Your task to perform on an android device: change the clock display to analog Image 0: 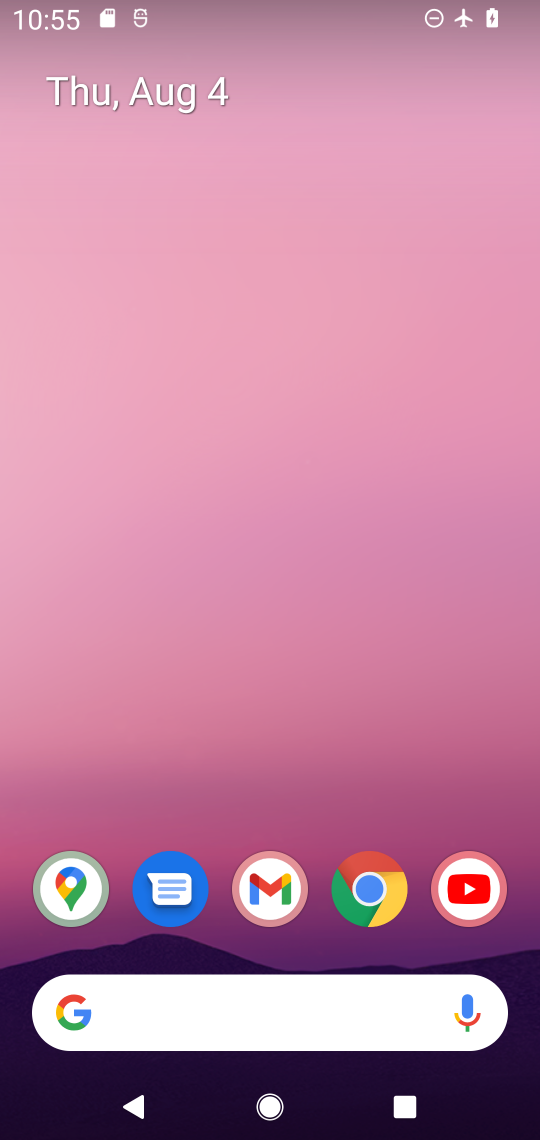
Step 0: press home button
Your task to perform on an android device: change the clock display to analog Image 1: 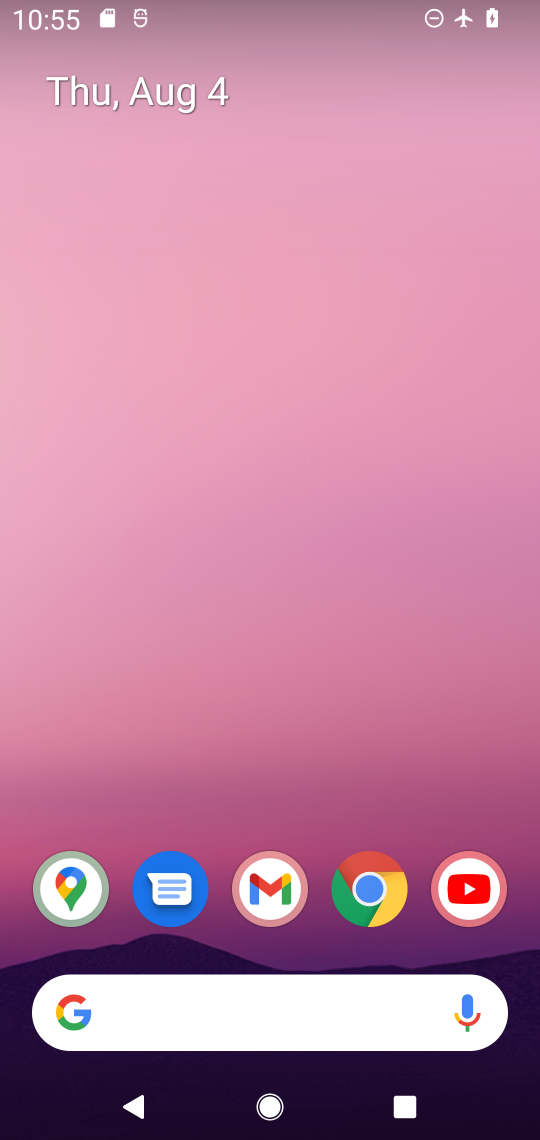
Step 1: drag from (415, 769) to (376, 194)
Your task to perform on an android device: change the clock display to analog Image 2: 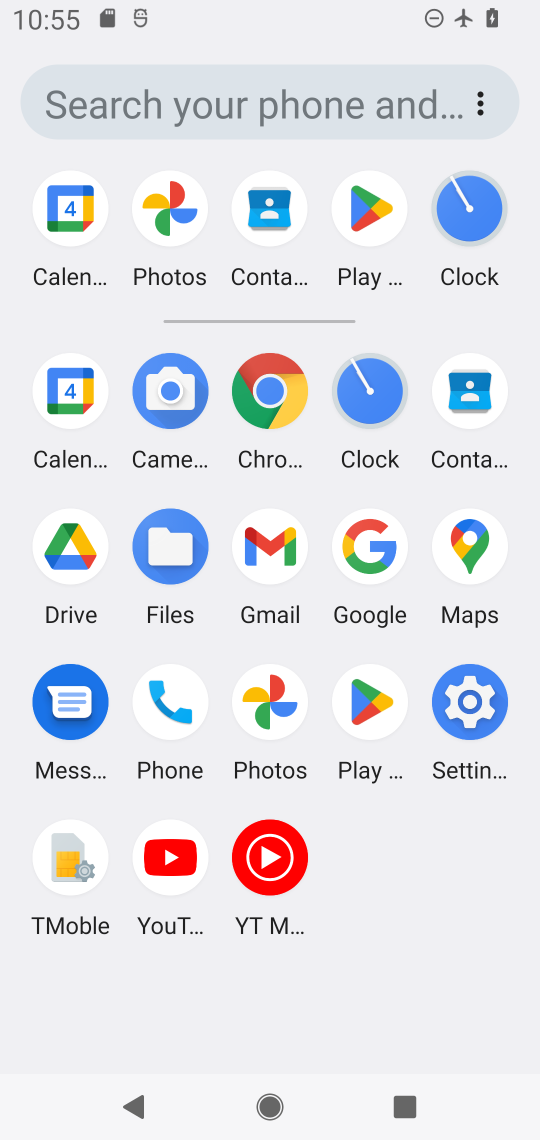
Step 2: click (368, 409)
Your task to perform on an android device: change the clock display to analog Image 3: 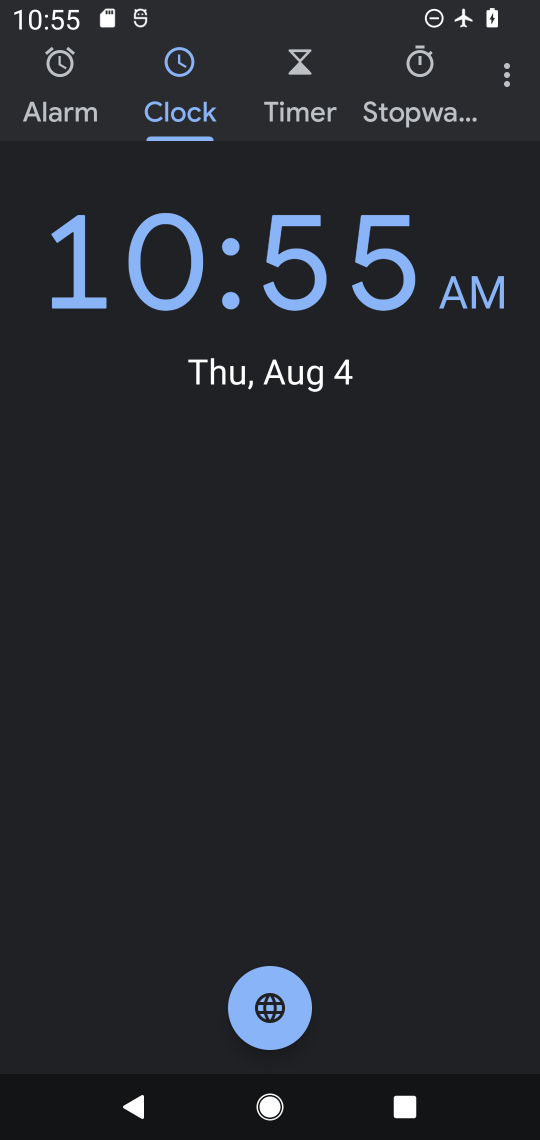
Step 3: click (509, 73)
Your task to perform on an android device: change the clock display to analog Image 4: 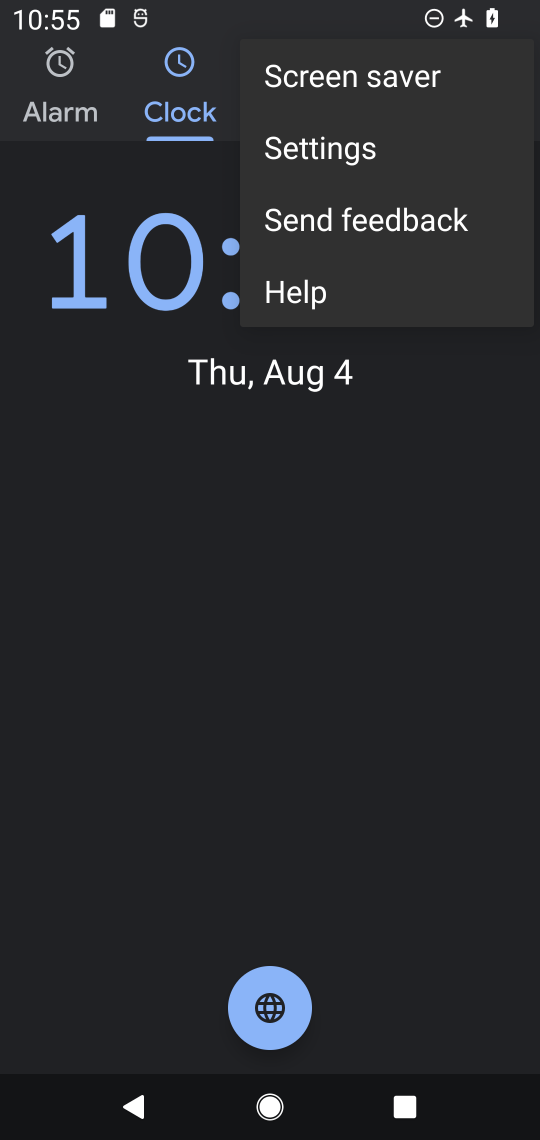
Step 4: click (352, 153)
Your task to perform on an android device: change the clock display to analog Image 5: 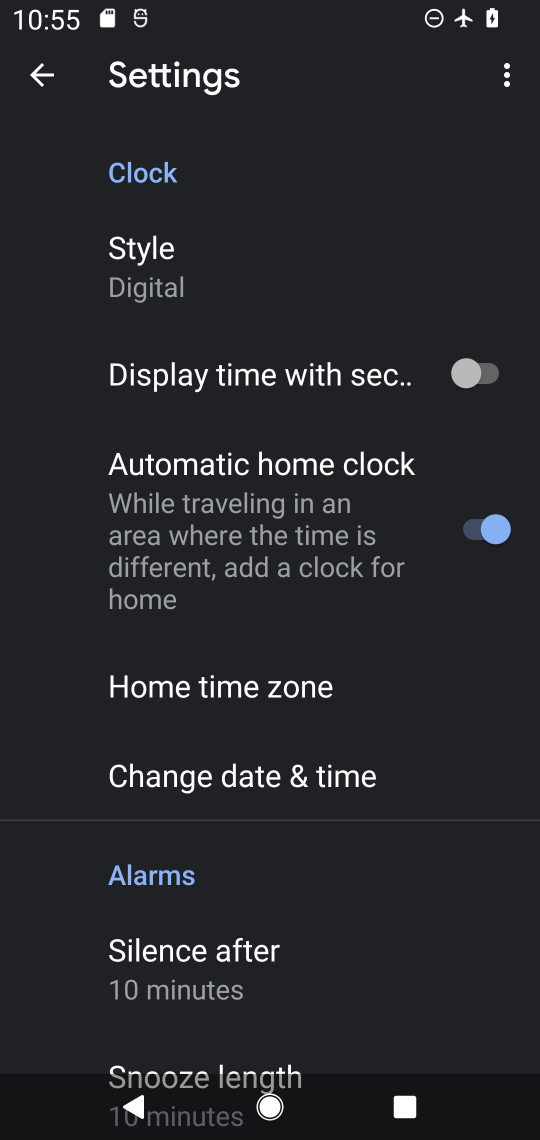
Step 5: drag from (372, 662) to (352, 453)
Your task to perform on an android device: change the clock display to analog Image 6: 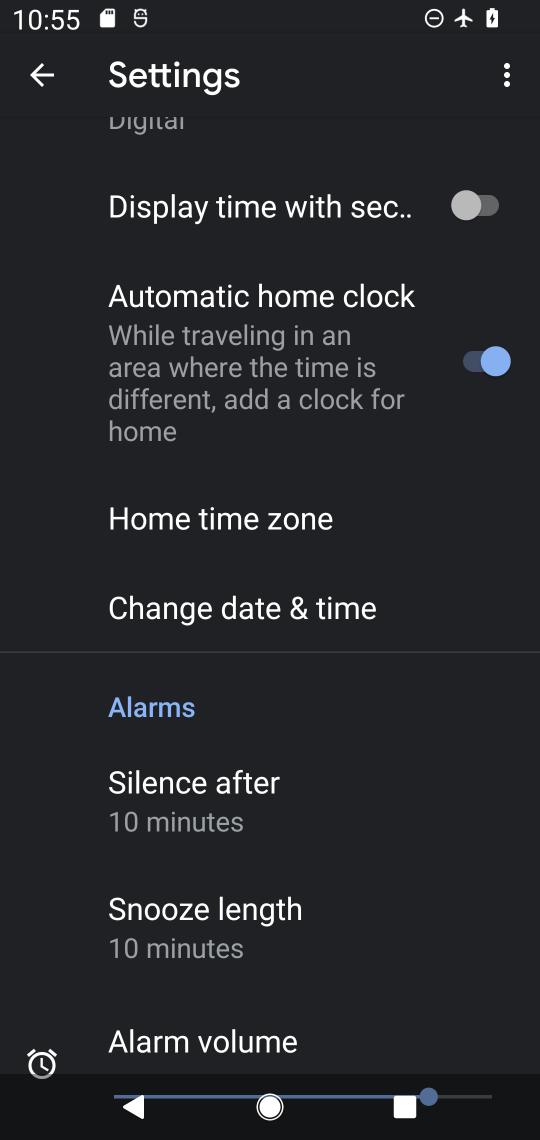
Step 6: drag from (404, 717) to (407, 527)
Your task to perform on an android device: change the clock display to analog Image 7: 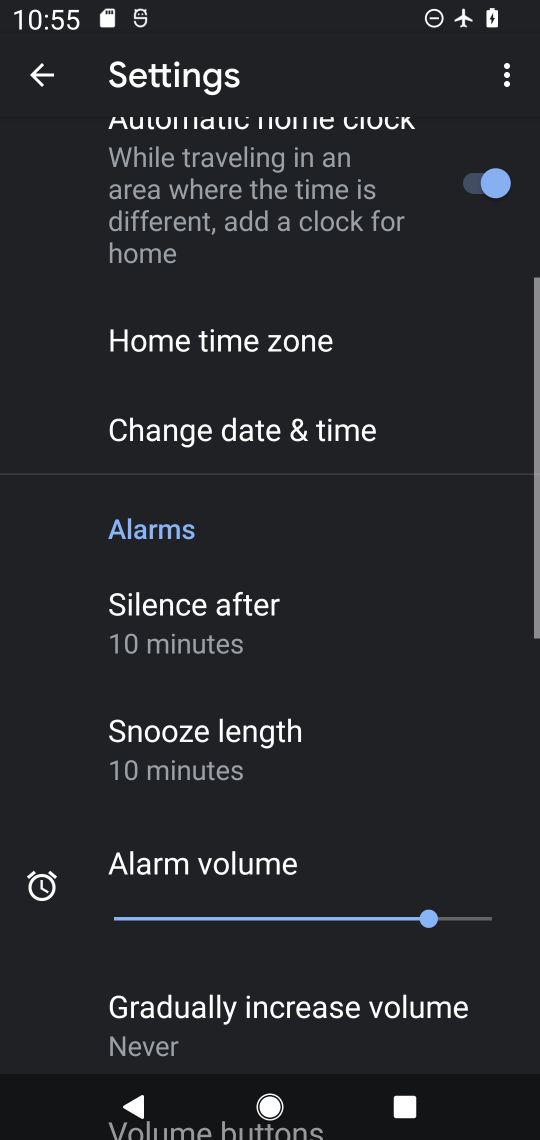
Step 7: drag from (437, 725) to (432, 577)
Your task to perform on an android device: change the clock display to analog Image 8: 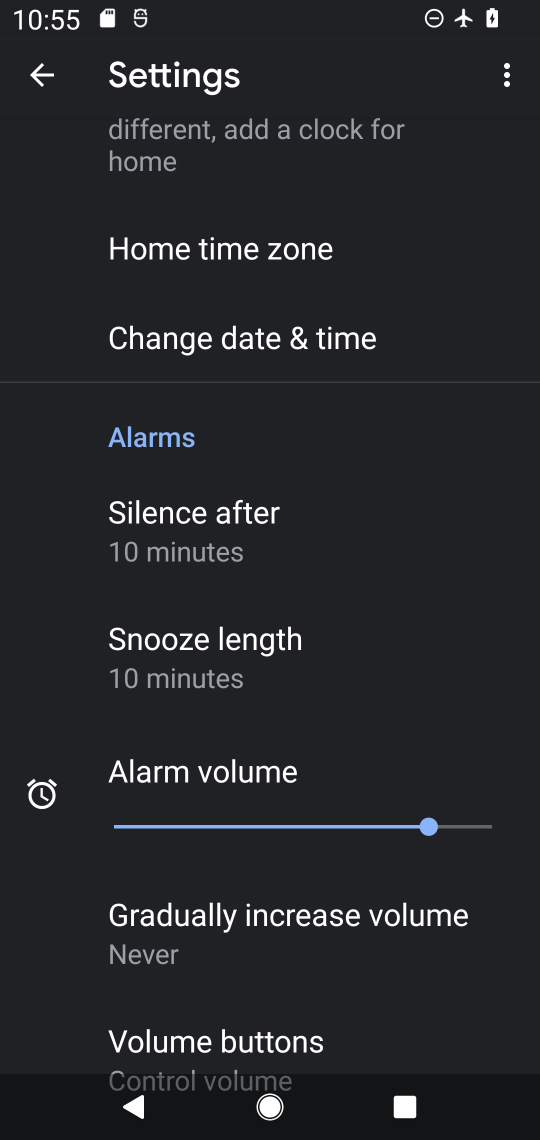
Step 8: drag from (455, 913) to (459, 630)
Your task to perform on an android device: change the clock display to analog Image 9: 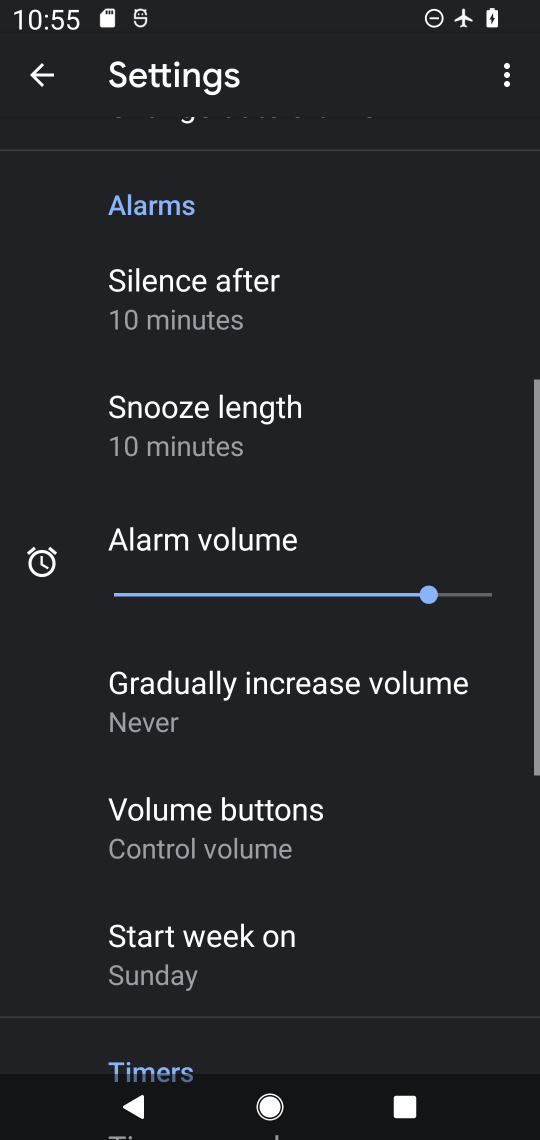
Step 9: drag from (436, 933) to (442, 703)
Your task to perform on an android device: change the clock display to analog Image 10: 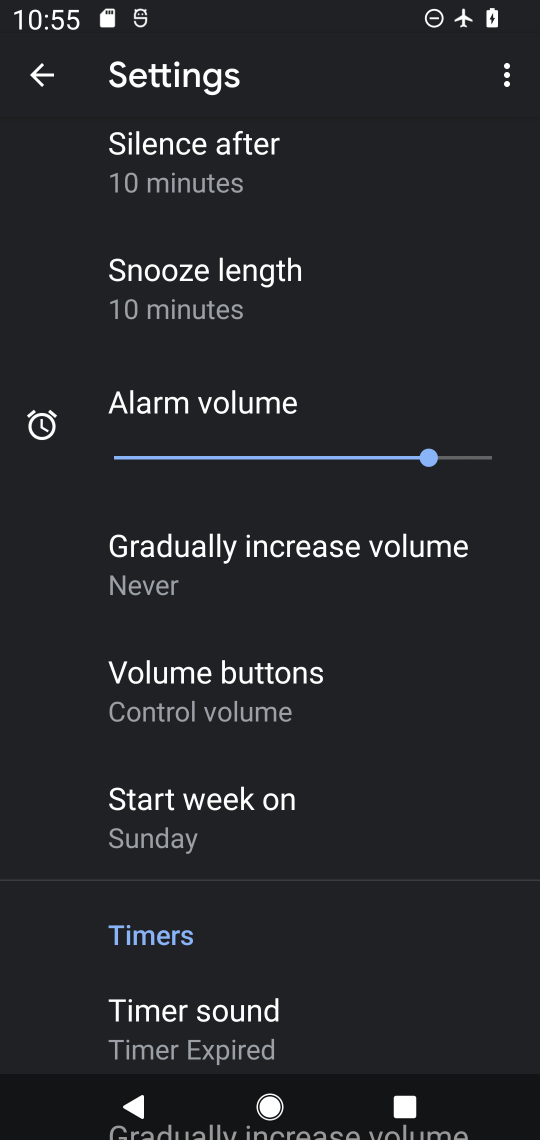
Step 10: drag from (487, 291) to (490, 527)
Your task to perform on an android device: change the clock display to analog Image 11: 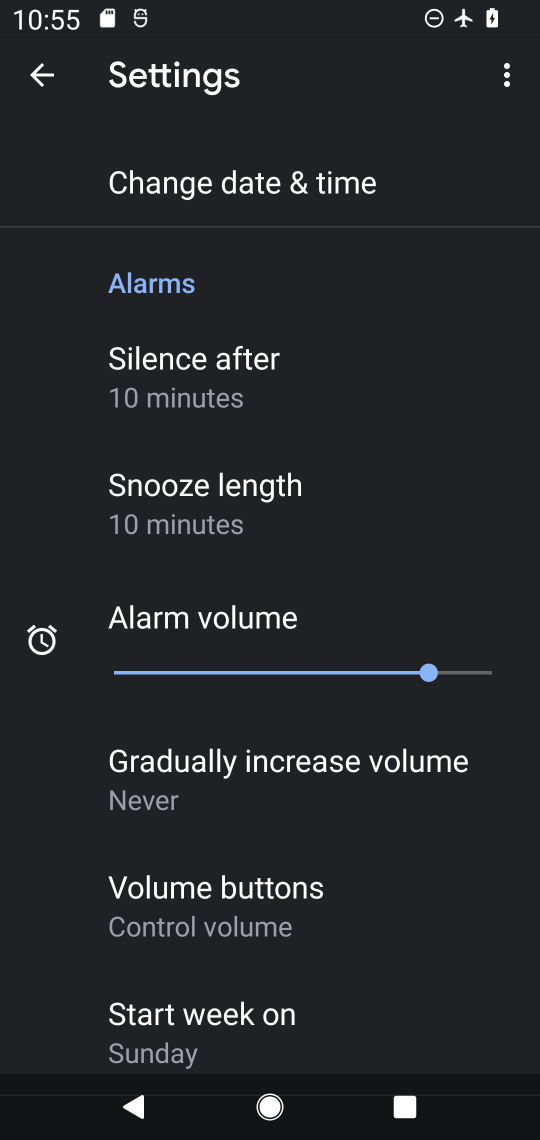
Step 11: drag from (444, 249) to (443, 543)
Your task to perform on an android device: change the clock display to analog Image 12: 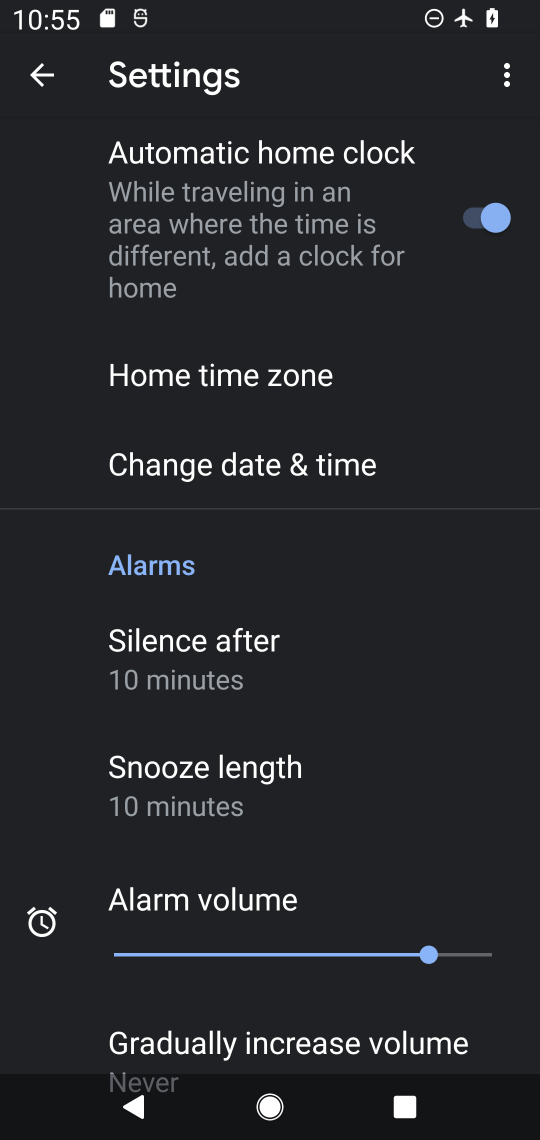
Step 12: drag from (396, 198) to (398, 564)
Your task to perform on an android device: change the clock display to analog Image 13: 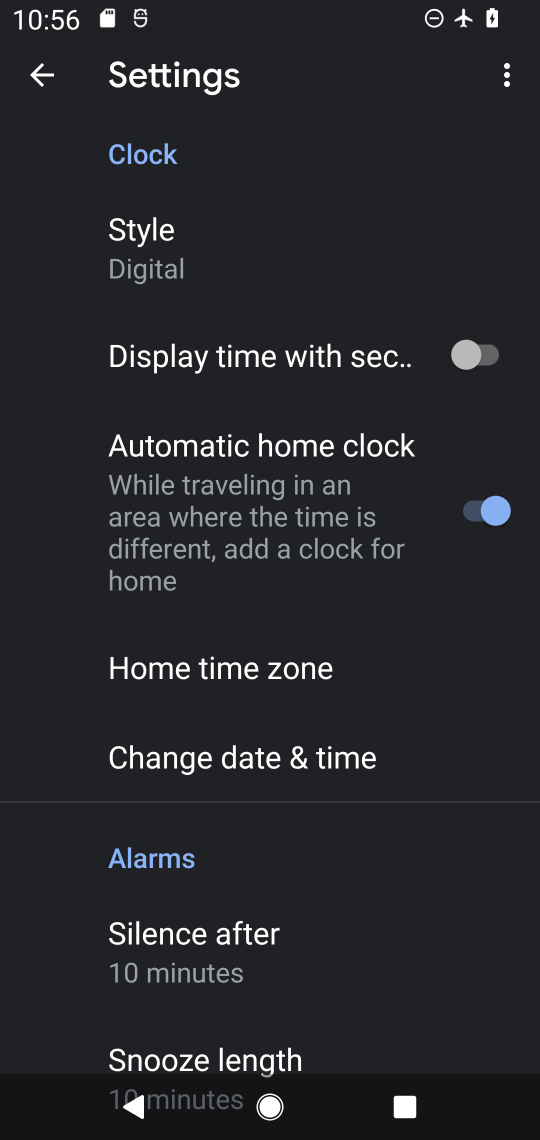
Step 13: click (209, 262)
Your task to perform on an android device: change the clock display to analog Image 14: 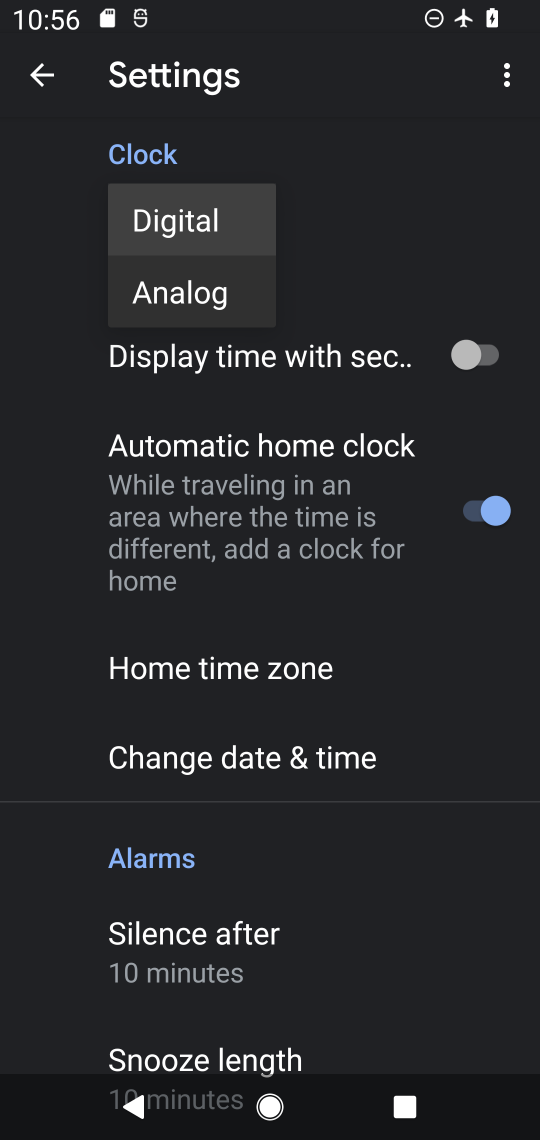
Step 14: click (199, 302)
Your task to perform on an android device: change the clock display to analog Image 15: 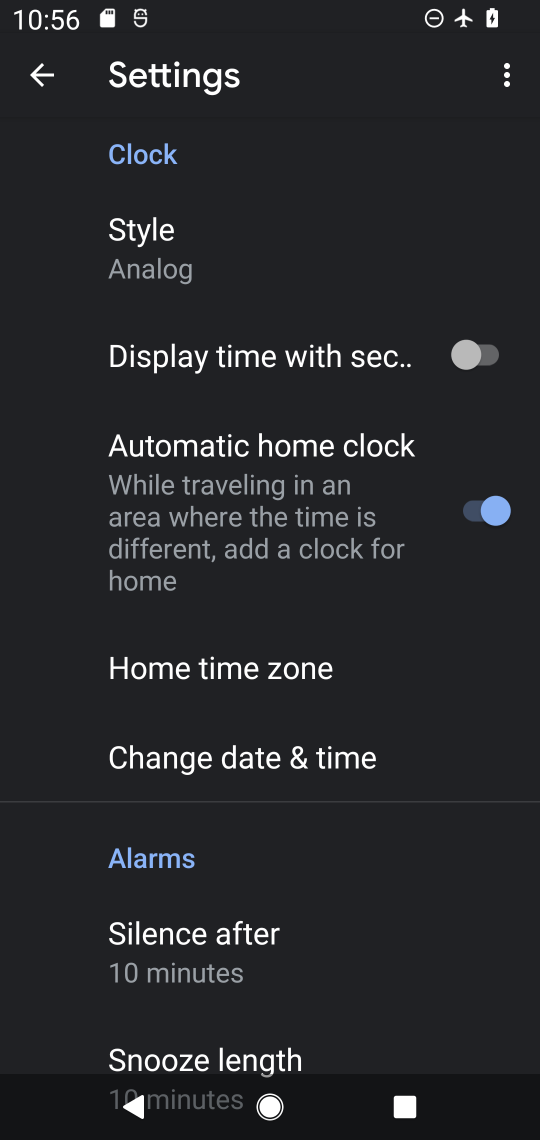
Step 15: task complete